Your task to perform on an android device: open app "Gmail" (install if not already installed) and go to login screen Image 0: 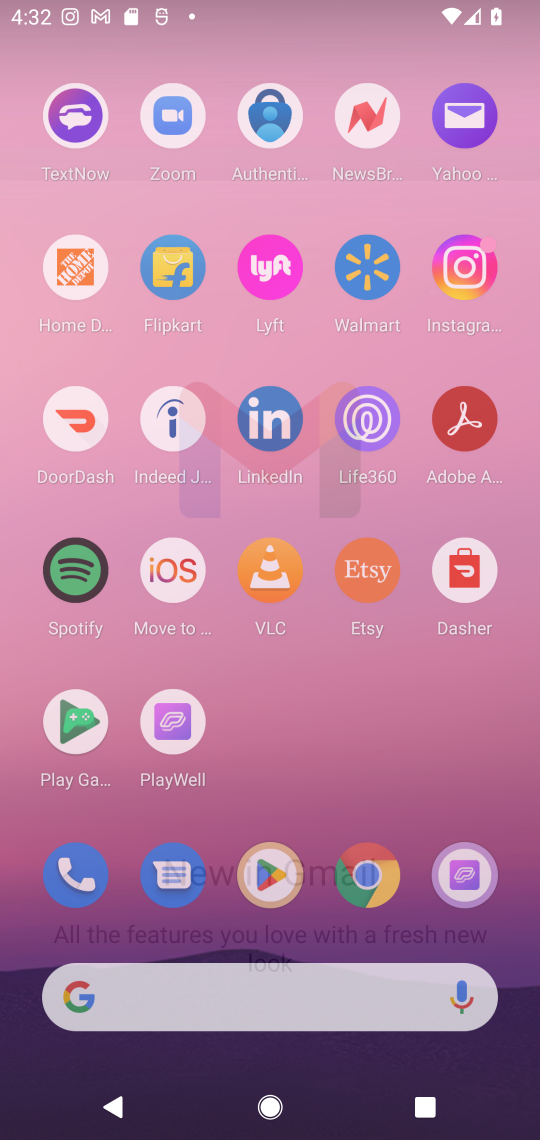
Step 0: press home button
Your task to perform on an android device: open app "Gmail" (install if not already installed) and go to login screen Image 1: 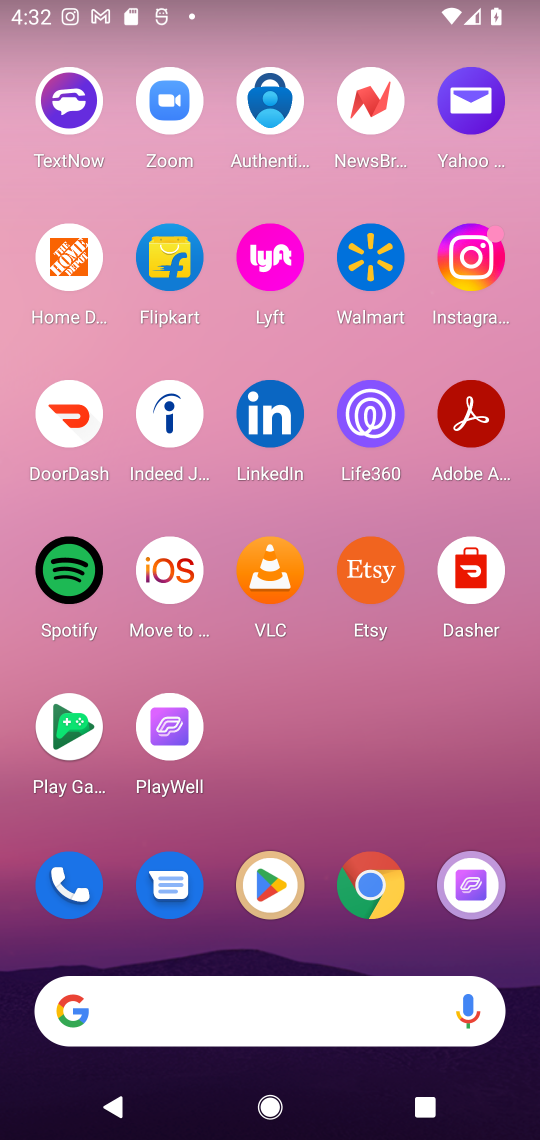
Step 1: click (268, 879)
Your task to perform on an android device: open app "Gmail" (install if not already installed) and go to login screen Image 2: 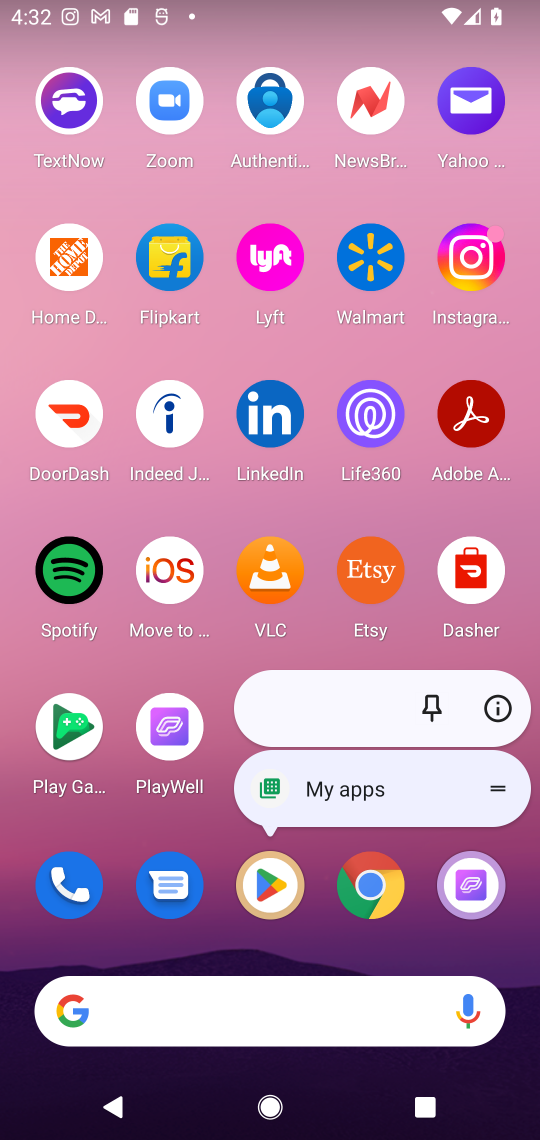
Step 2: click (268, 879)
Your task to perform on an android device: open app "Gmail" (install if not already installed) and go to login screen Image 3: 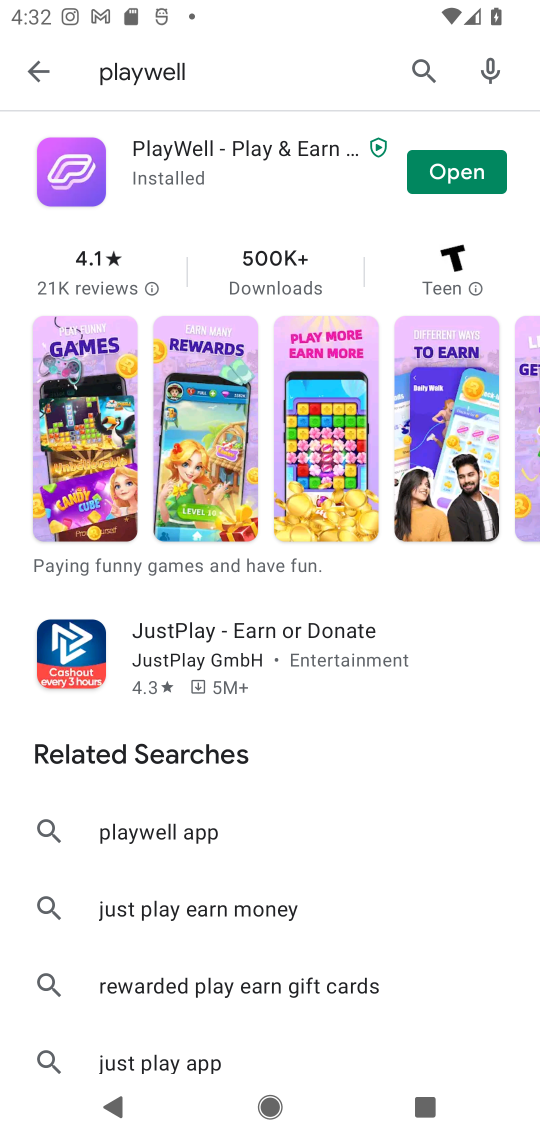
Step 3: click (418, 67)
Your task to perform on an android device: open app "Gmail" (install if not already installed) and go to login screen Image 4: 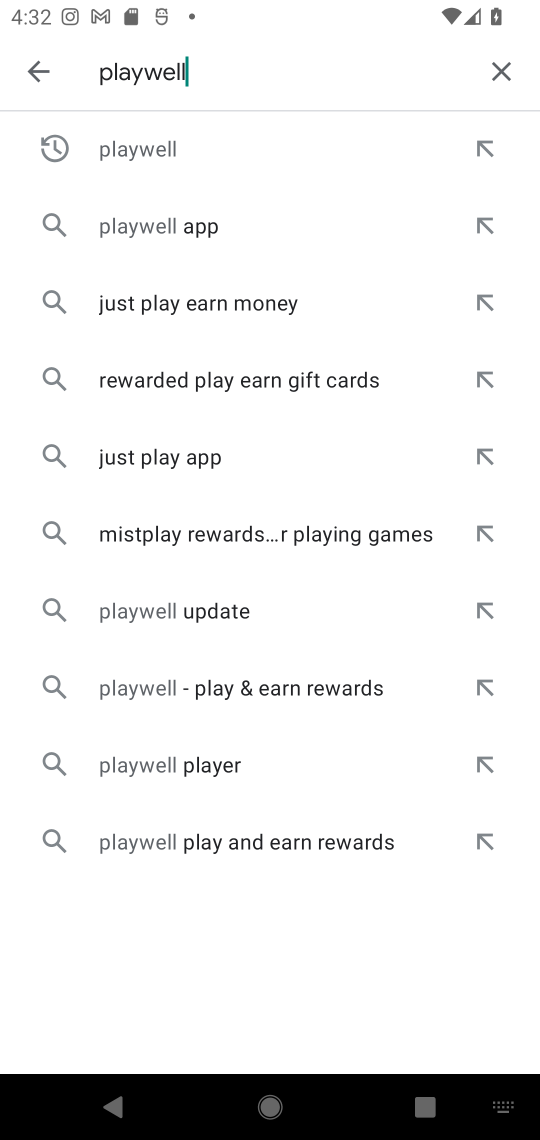
Step 4: click (501, 69)
Your task to perform on an android device: open app "Gmail" (install if not already installed) and go to login screen Image 5: 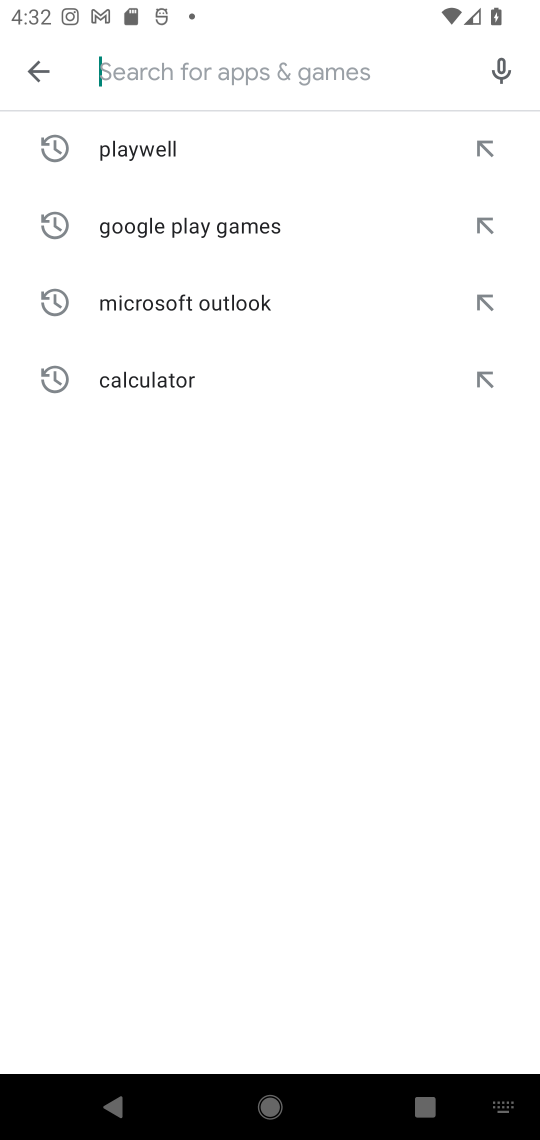
Step 5: type "gmail.com"
Your task to perform on an android device: open app "Gmail" (install if not already installed) and go to login screen Image 6: 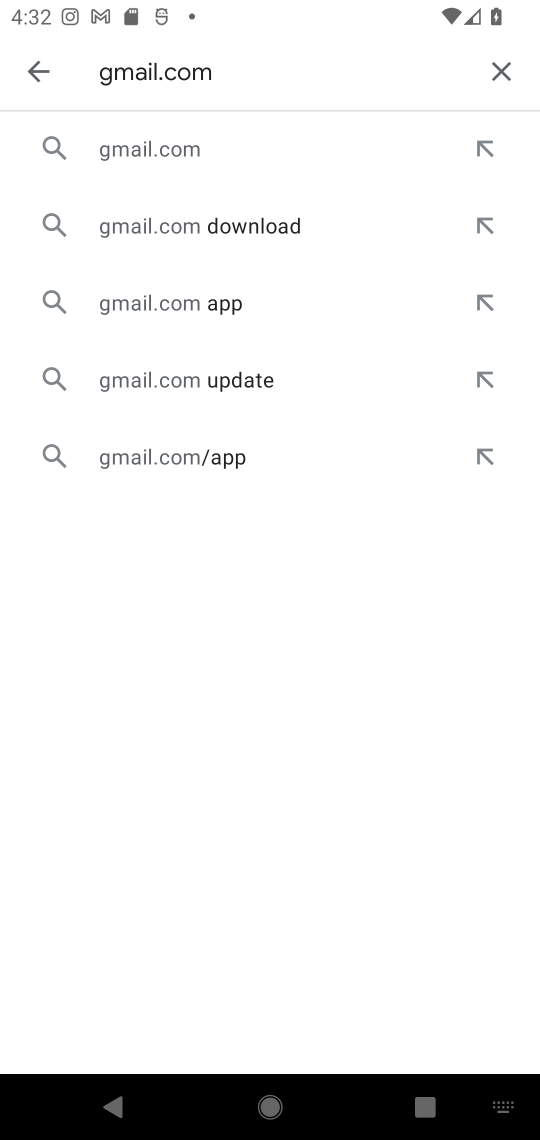
Step 6: click (201, 141)
Your task to perform on an android device: open app "Gmail" (install if not already installed) and go to login screen Image 7: 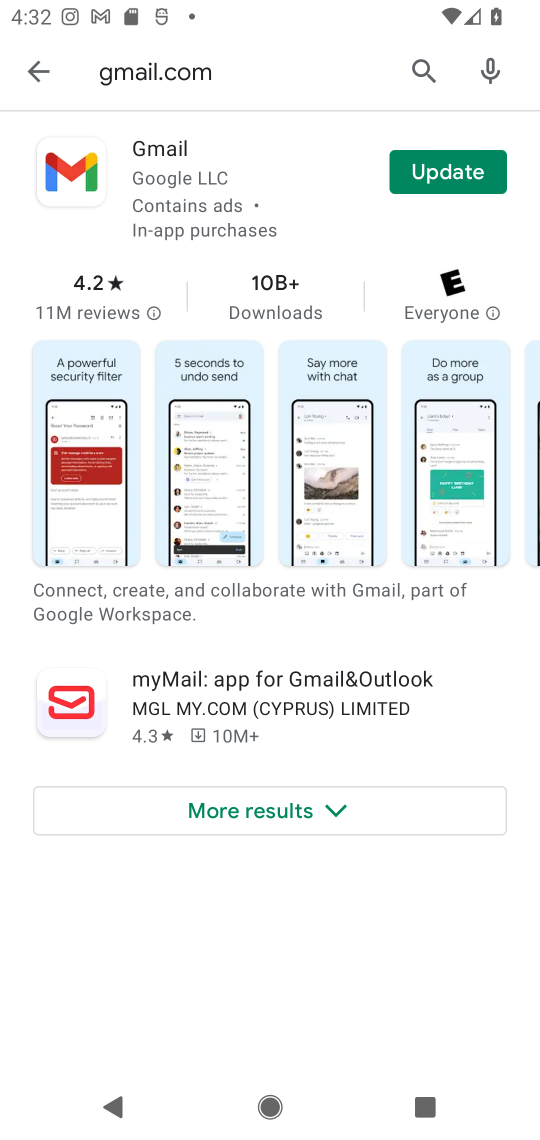
Step 7: click (452, 173)
Your task to perform on an android device: open app "Gmail" (install if not already installed) and go to login screen Image 8: 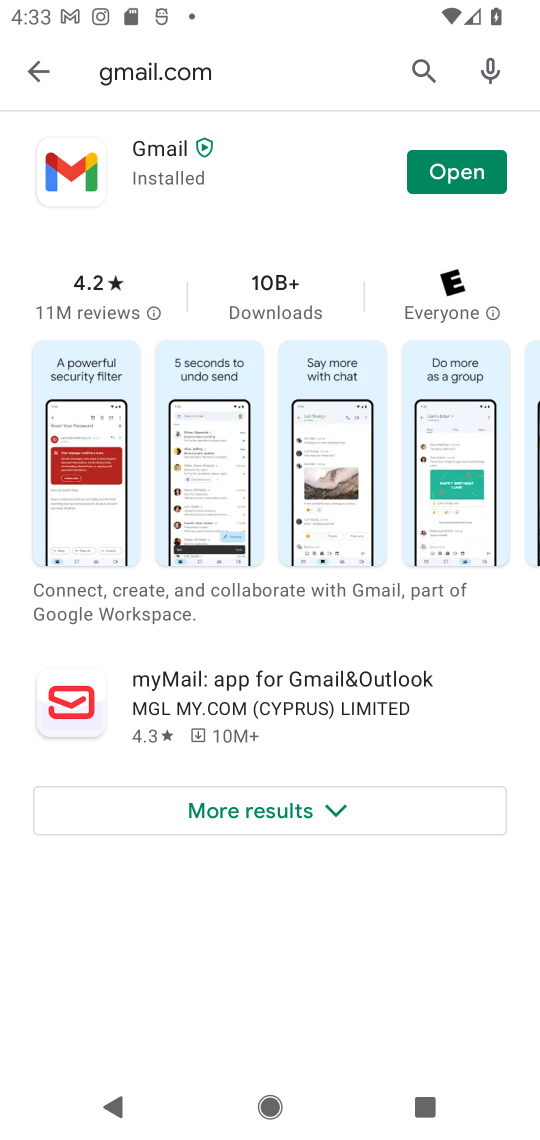
Step 8: click (461, 171)
Your task to perform on an android device: open app "Gmail" (install if not already installed) and go to login screen Image 9: 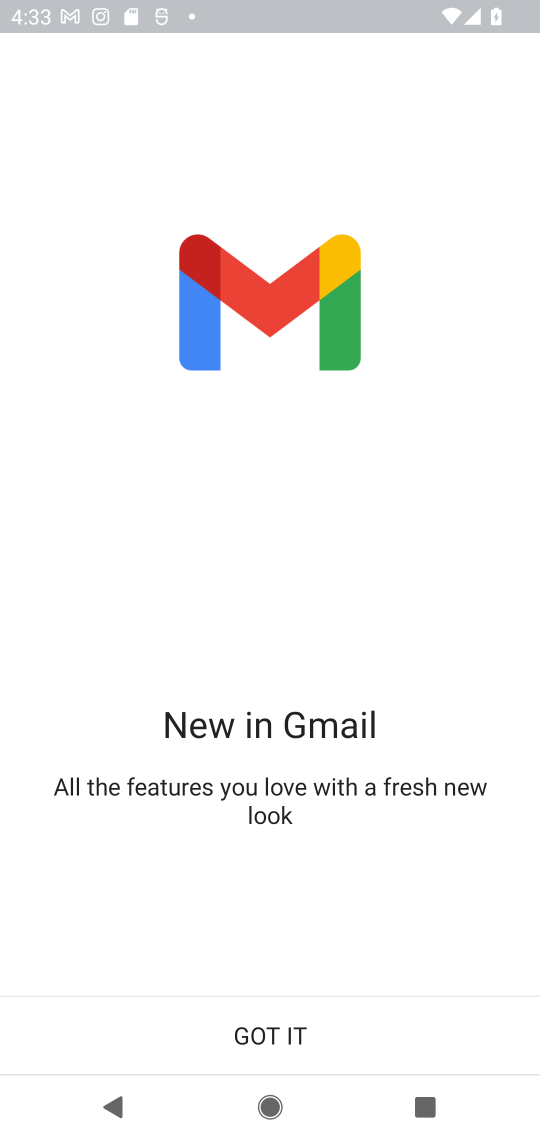
Step 9: click (269, 1031)
Your task to perform on an android device: open app "Gmail" (install if not already installed) and go to login screen Image 10: 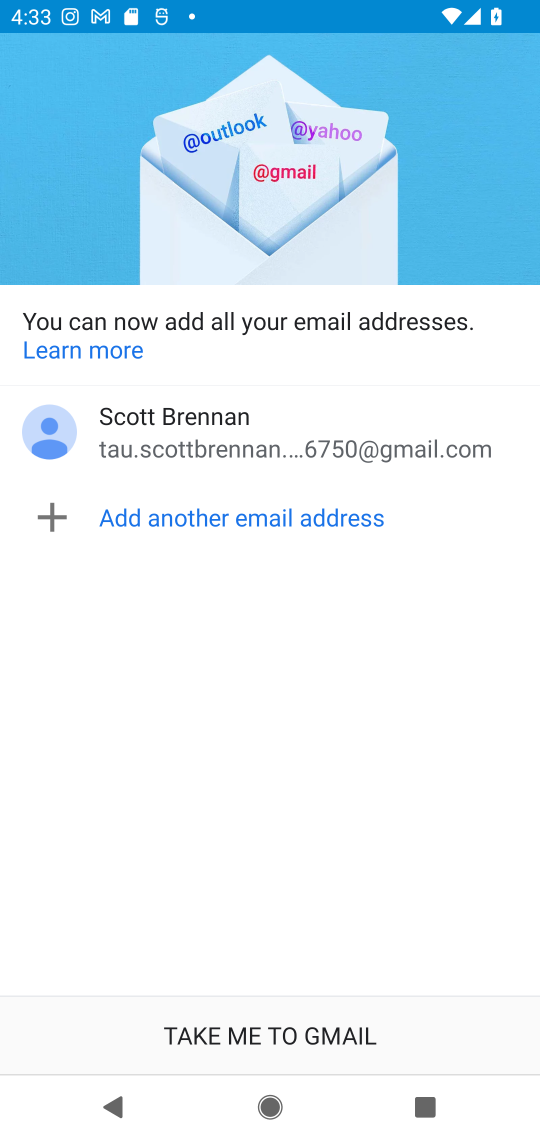
Step 10: click (269, 1031)
Your task to perform on an android device: open app "Gmail" (install if not already installed) and go to login screen Image 11: 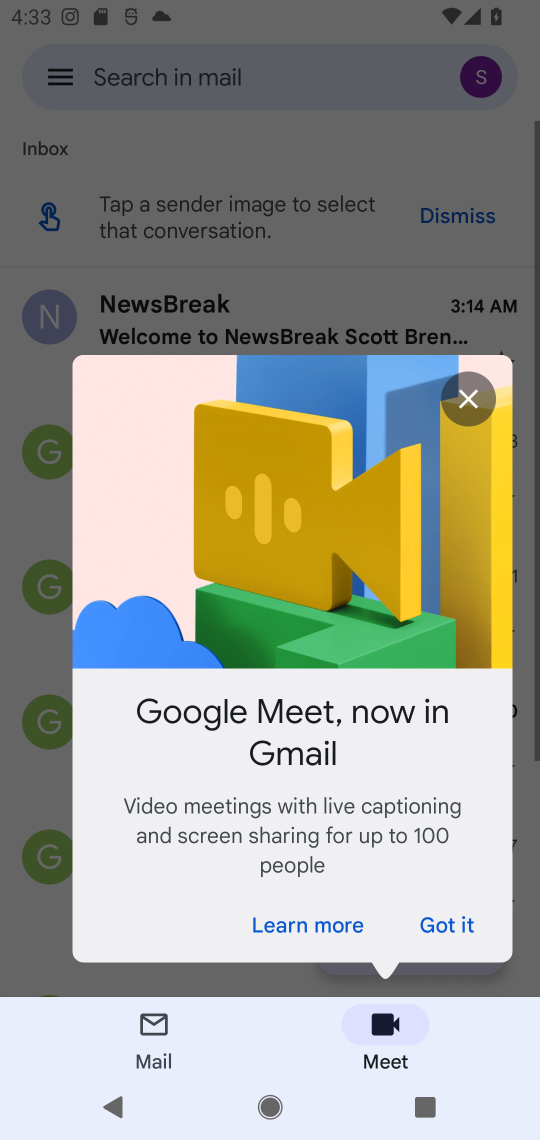
Step 11: task complete